Your task to perform on an android device: change your default location settings in chrome Image 0: 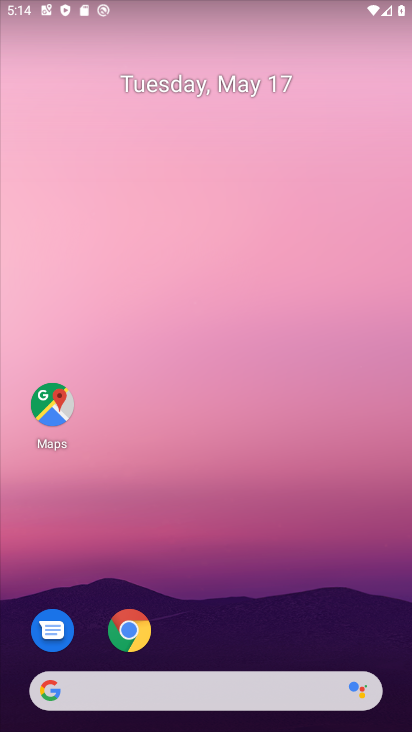
Step 0: drag from (228, 613) to (271, 90)
Your task to perform on an android device: change your default location settings in chrome Image 1: 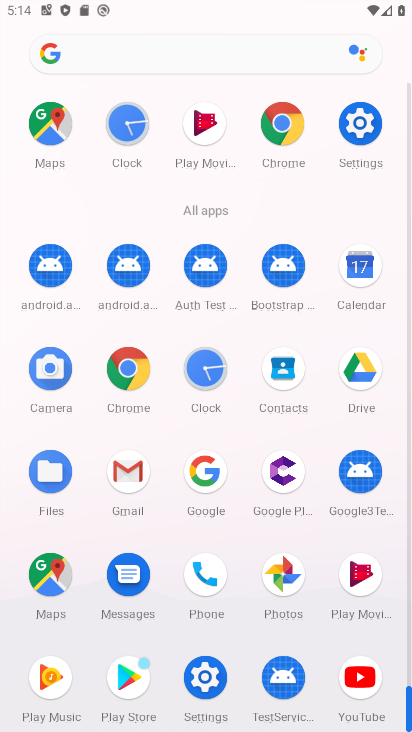
Step 1: click (137, 363)
Your task to perform on an android device: change your default location settings in chrome Image 2: 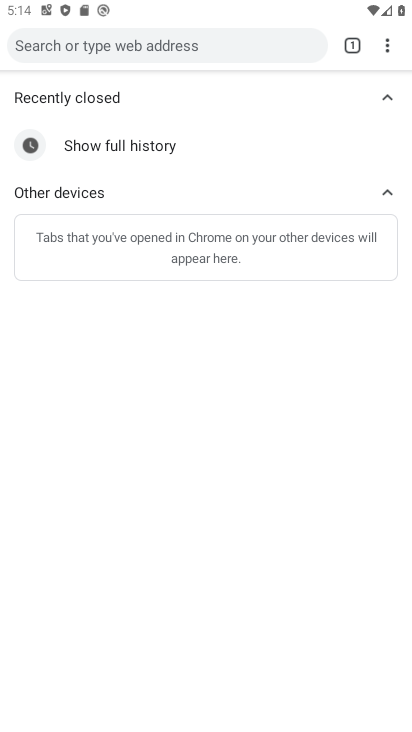
Step 2: drag from (385, 46) to (282, 382)
Your task to perform on an android device: change your default location settings in chrome Image 3: 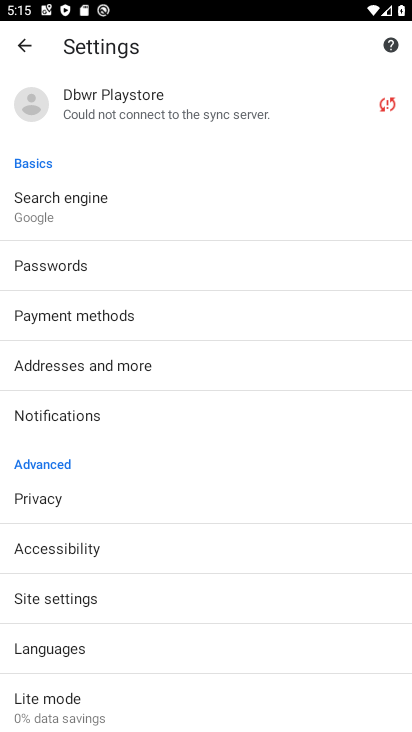
Step 3: click (98, 602)
Your task to perform on an android device: change your default location settings in chrome Image 4: 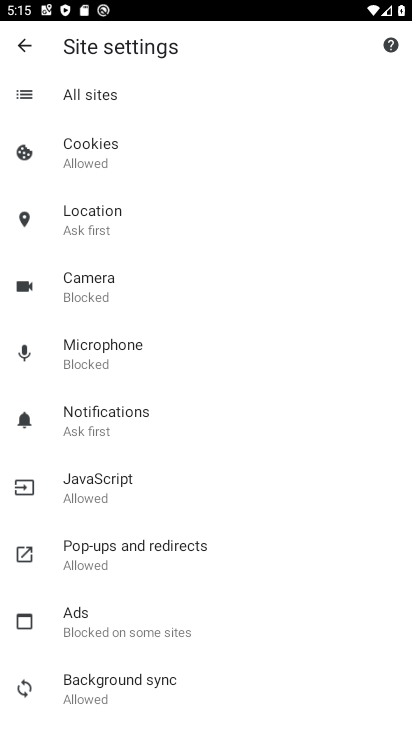
Step 4: click (111, 226)
Your task to perform on an android device: change your default location settings in chrome Image 5: 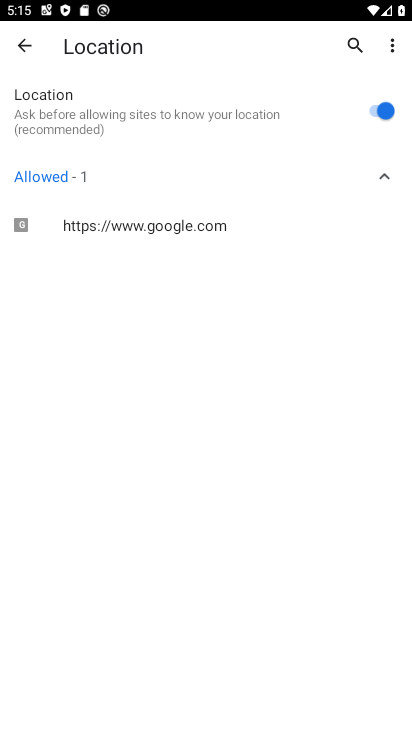
Step 5: click (376, 111)
Your task to perform on an android device: change your default location settings in chrome Image 6: 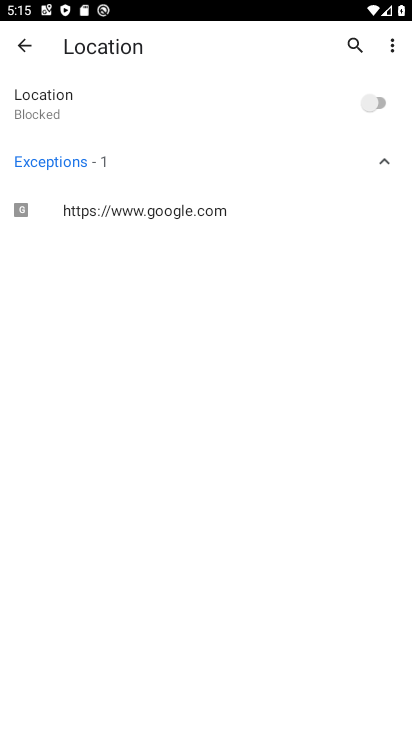
Step 6: task complete